Your task to perform on an android device: toggle javascript in the chrome app Image 0: 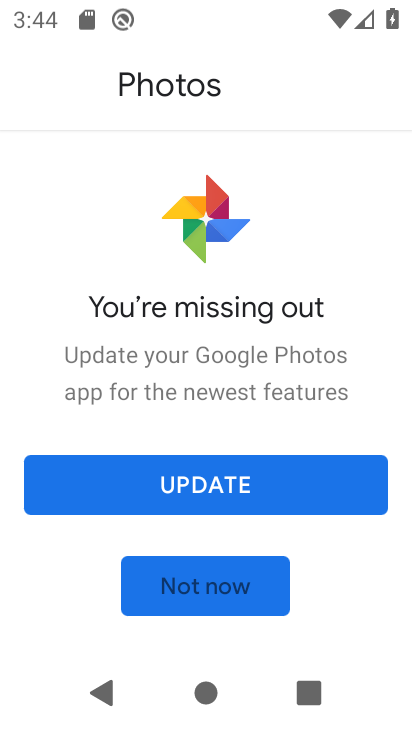
Step 0: press home button
Your task to perform on an android device: toggle javascript in the chrome app Image 1: 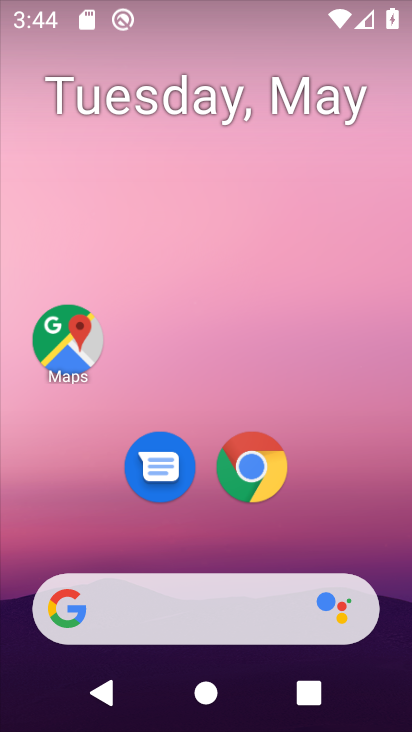
Step 1: drag from (303, 548) to (186, 175)
Your task to perform on an android device: toggle javascript in the chrome app Image 2: 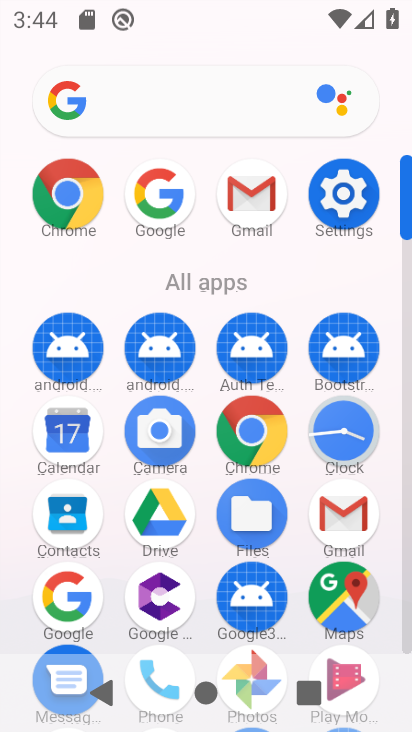
Step 2: click (77, 205)
Your task to perform on an android device: toggle javascript in the chrome app Image 3: 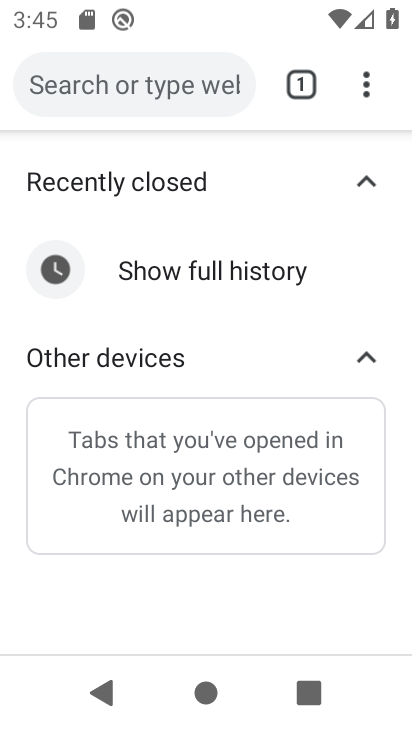
Step 3: click (362, 80)
Your task to perform on an android device: toggle javascript in the chrome app Image 4: 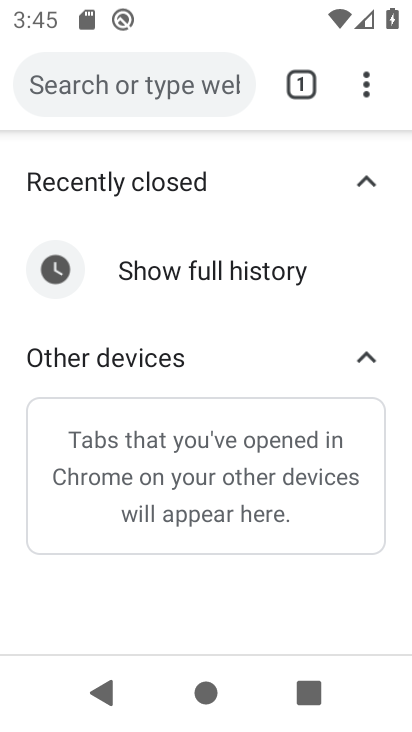
Step 4: click (366, 88)
Your task to perform on an android device: toggle javascript in the chrome app Image 5: 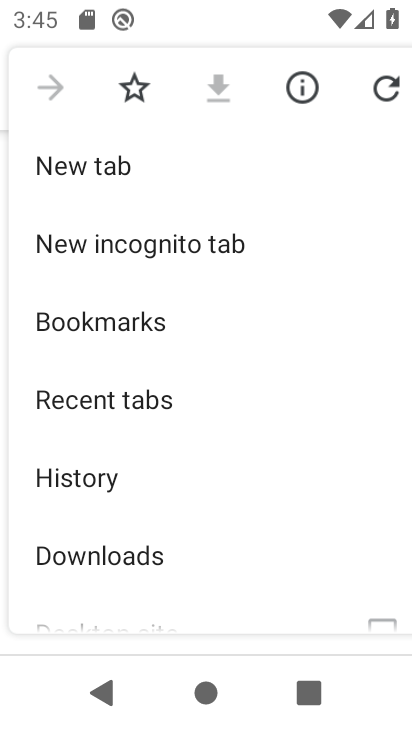
Step 5: drag from (137, 504) to (161, 437)
Your task to perform on an android device: toggle javascript in the chrome app Image 6: 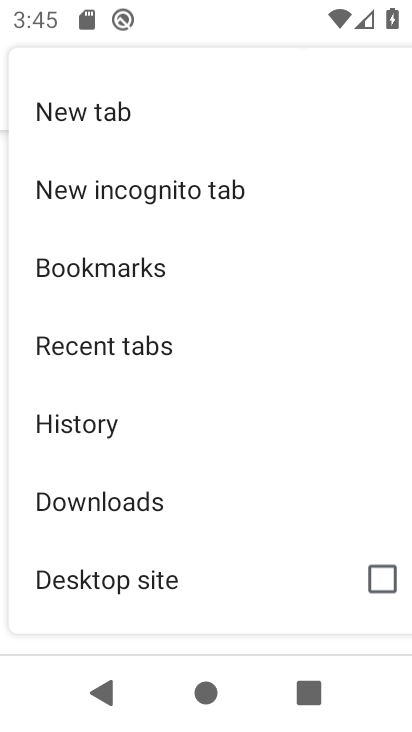
Step 6: drag from (175, 571) to (149, 220)
Your task to perform on an android device: toggle javascript in the chrome app Image 7: 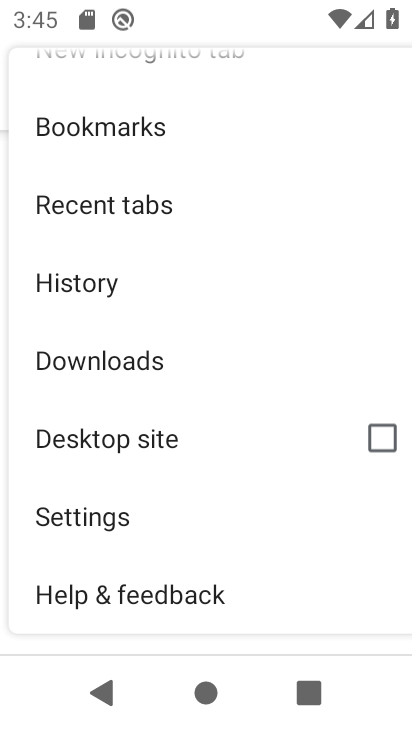
Step 7: click (92, 519)
Your task to perform on an android device: toggle javascript in the chrome app Image 8: 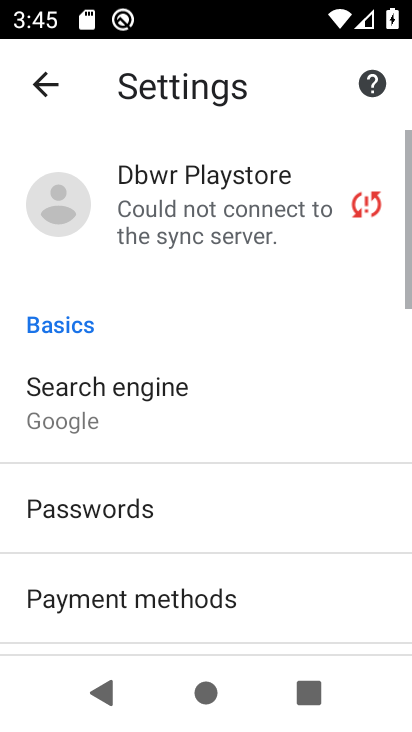
Step 8: drag from (133, 578) to (175, 165)
Your task to perform on an android device: toggle javascript in the chrome app Image 9: 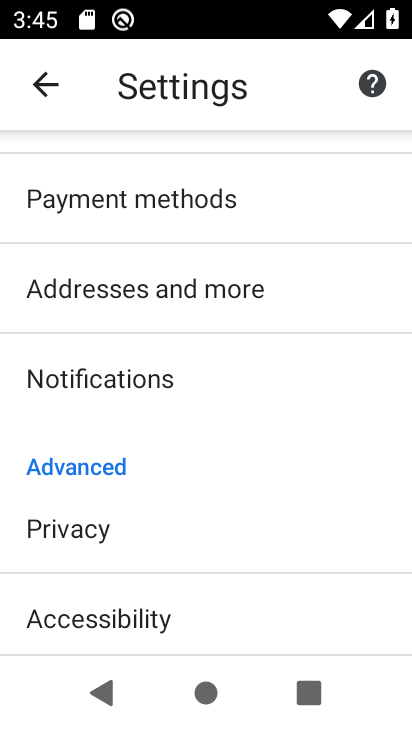
Step 9: click (152, 317)
Your task to perform on an android device: toggle javascript in the chrome app Image 10: 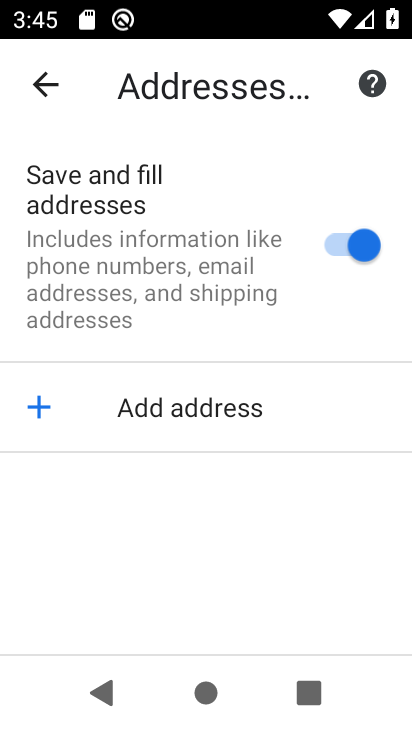
Step 10: click (53, 83)
Your task to perform on an android device: toggle javascript in the chrome app Image 11: 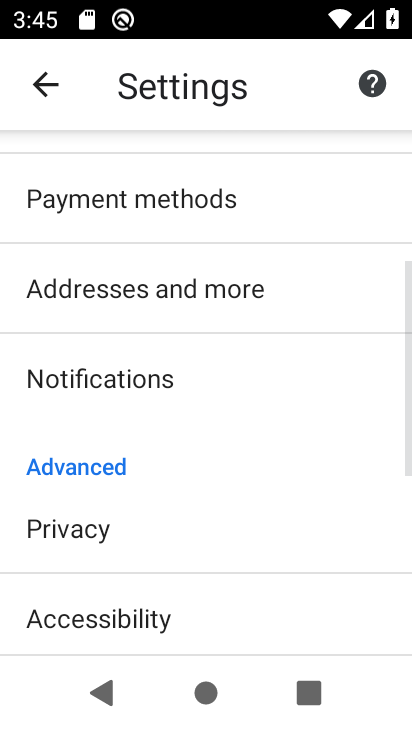
Step 11: drag from (163, 626) to (145, 290)
Your task to perform on an android device: toggle javascript in the chrome app Image 12: 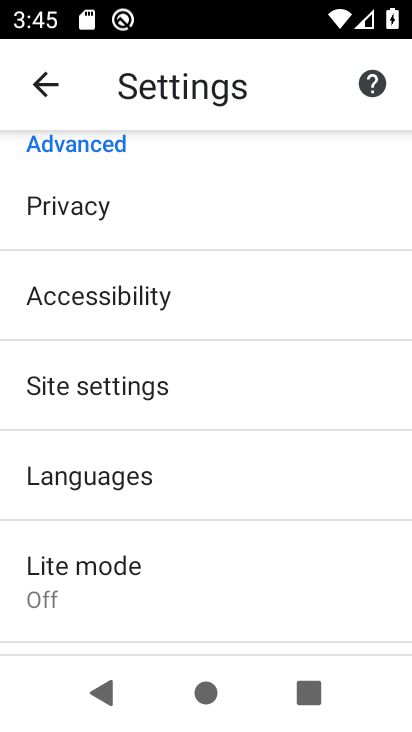
Step 12: click (122, 394)
Your task to perform on an android device: toggle javascript in the chrome app Image 13: 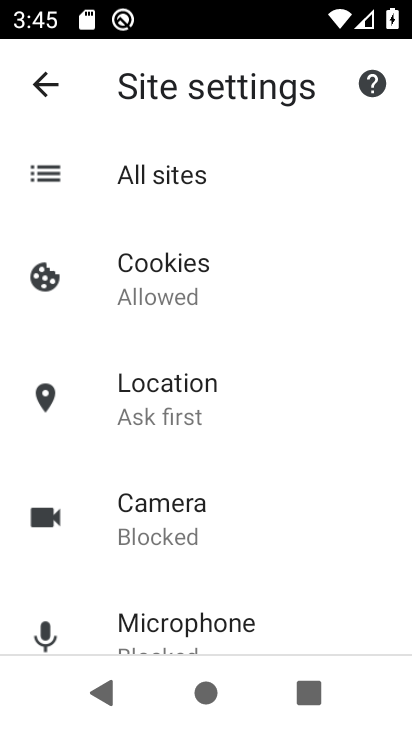
Step 13: drag from (183, 614) to (221, 404)
Your task to perform on an android device: toggle javascript in the chrome app Image 14: 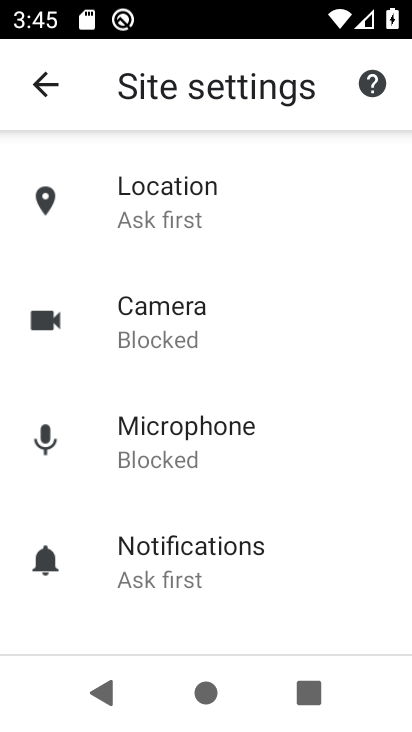
Step 14: drag from (191, 557) to (213, 304)
Your task to perform on an android device: toggle javascript in the chrome app Image 15: 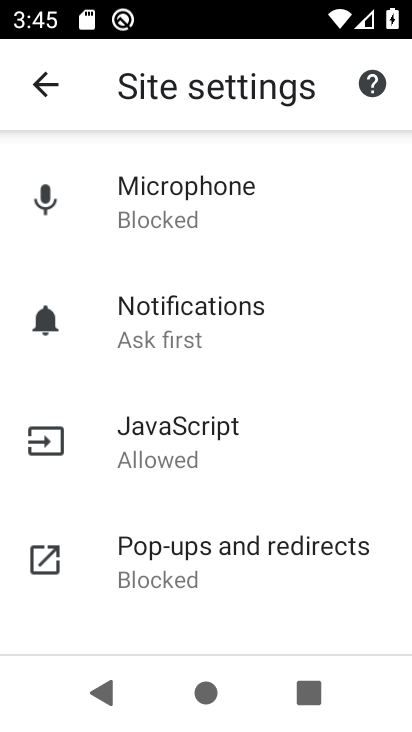
Step 15: click (154, 444)
Your task to perform on an android device: toggle javascript in the chrome app Image 16: 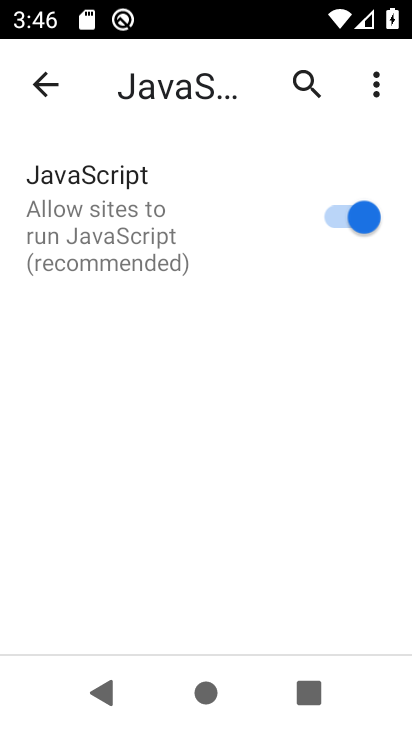
Step 16: click (339, 219)
Your task to perform on an android device: toggle javascript in the chrome app Image 17: 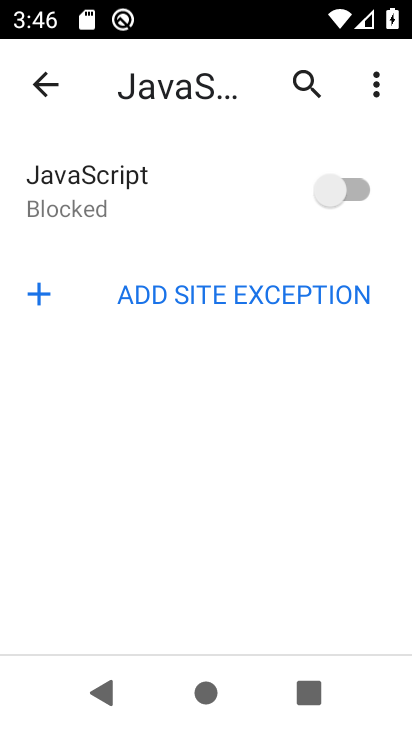
Step 17: task complete